Your task to perform on an android device: Open calendar and show me the third week of next month Image 0: 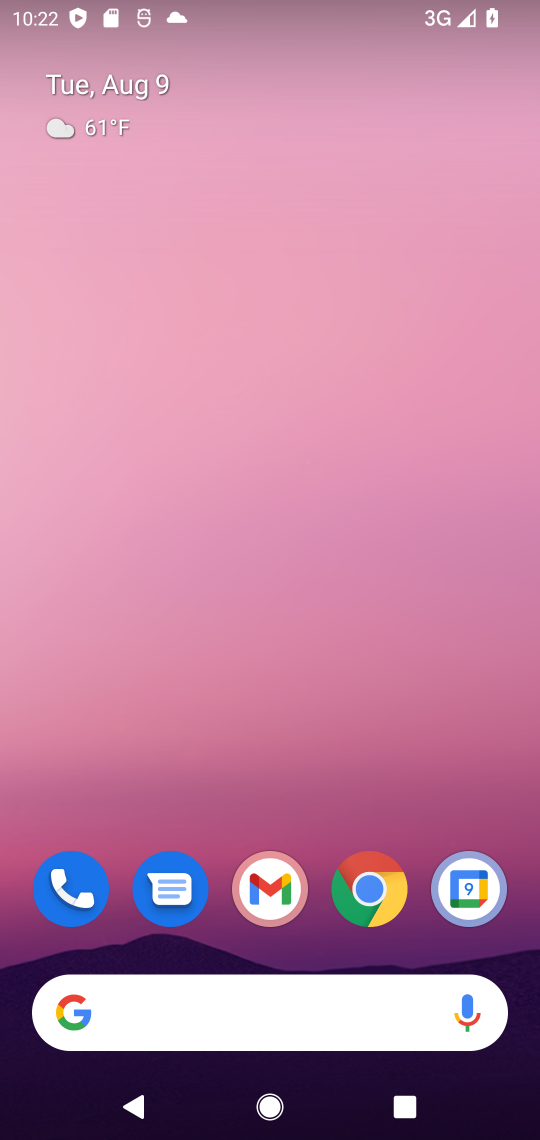
Step 0: drag from (310, 896) to (331, 121)
Your task to perform on an android device: Open calendar and show me the third week of next month Image 1: 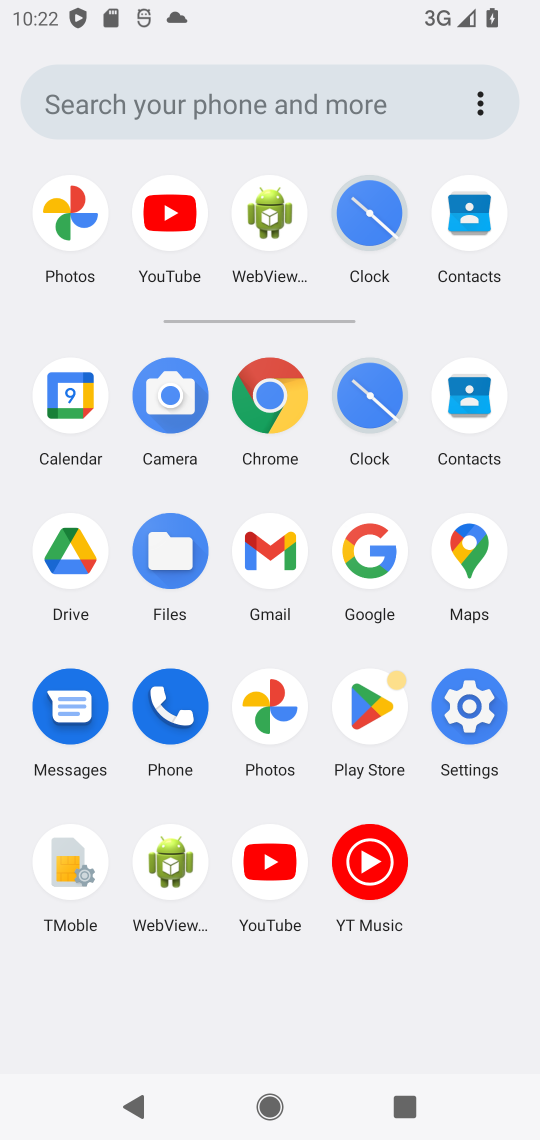
Step 1: click (52, 401)
Your task to perform on an android device: Open calendar and show me the third week of next month Image 2: 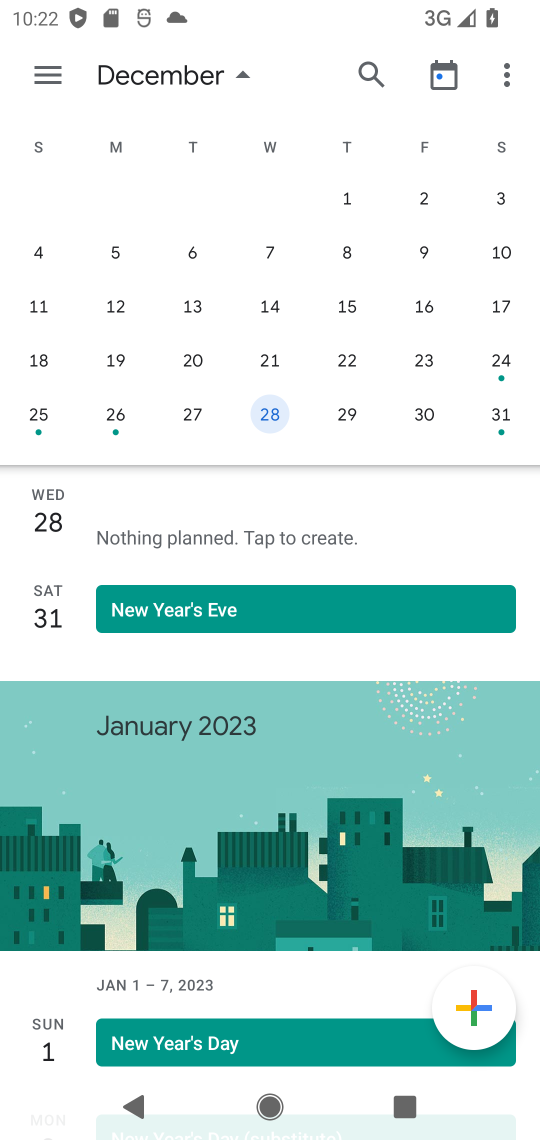
Step 2: drag from (358, 400) to (14, 107)
Your task to perform on an android device: Open calendar and show me the third week of next month Image 3: 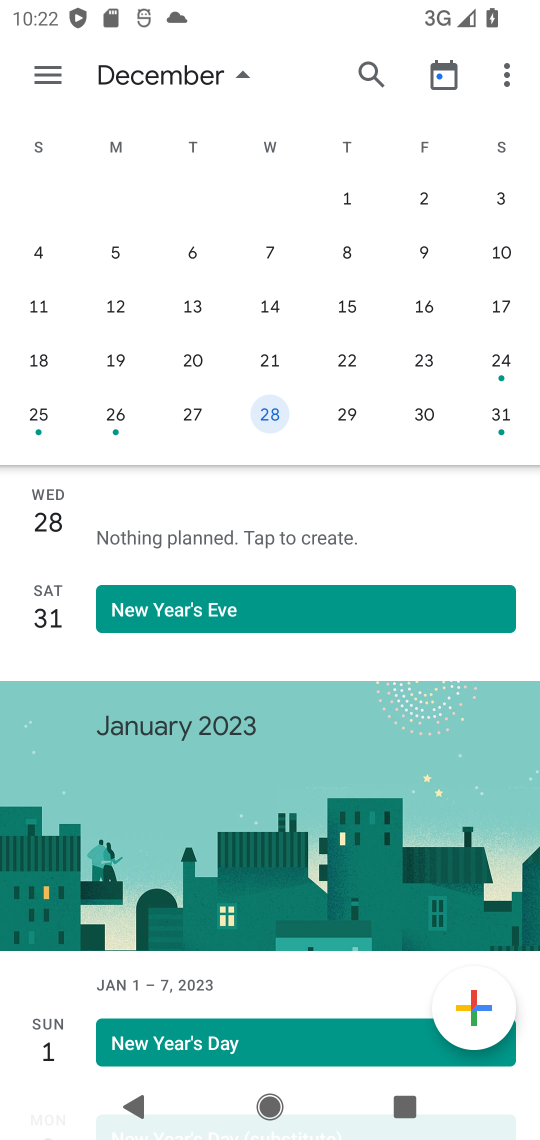
Step 3: click (269, 357)
Your task to perform on an android device: Open calendar and show me the third week of next month Image 4: 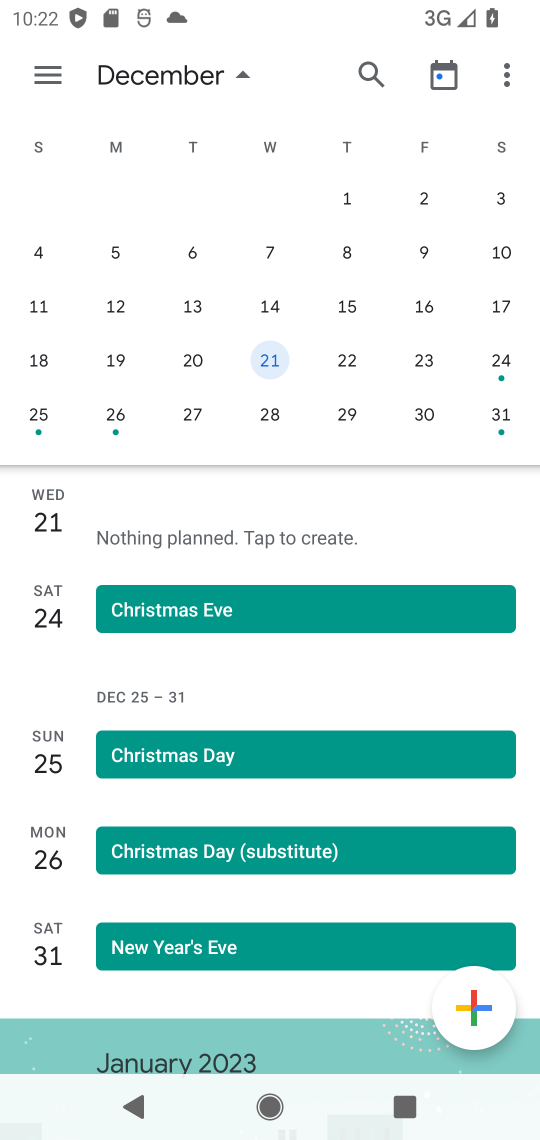
Step 4: task complete